Your task to perform on an android device: toggle data saver in the chrome app Image 0: 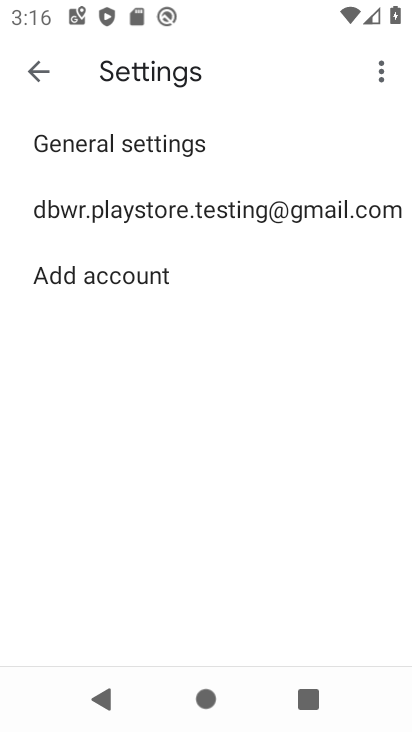
Step 0: press home button
Your task to perform on an android device: toggle data saver in the chrome app Image 1: 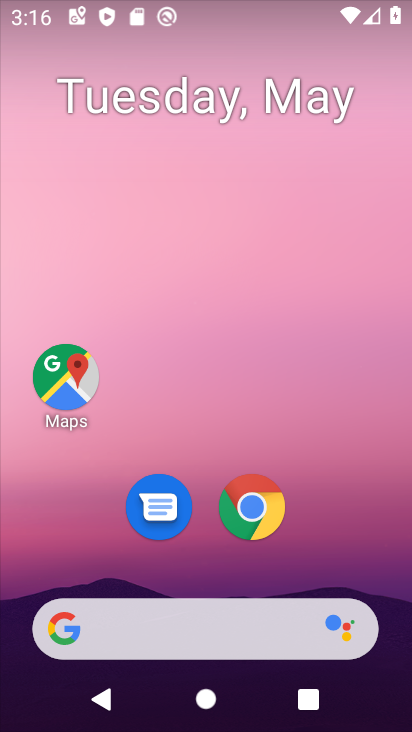
Step 1: click (252, 510)
Your task to perform on an android device: toggle data saver in the chrome app Image 2: 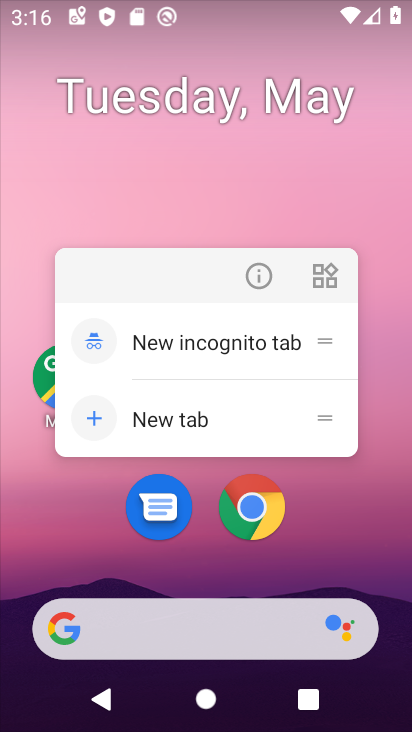
Step 2: click (251, 514)
Your task to perform on an android device: toggle data saver in the chrome app Image 3: 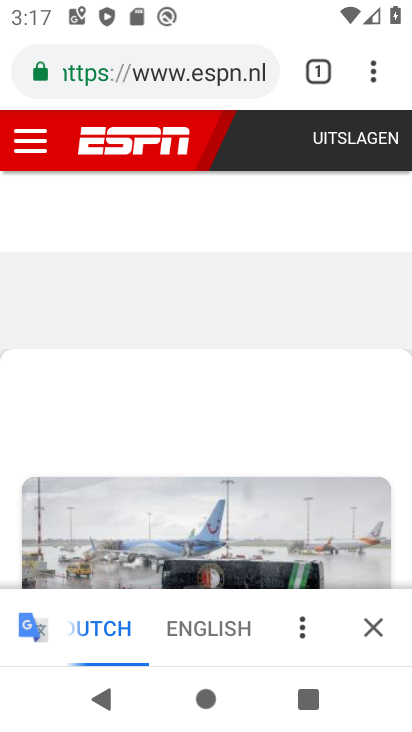
Step 3: click (382, 104)
Your task to perform on an android device: toggle data saver in the chrome app Image 4: 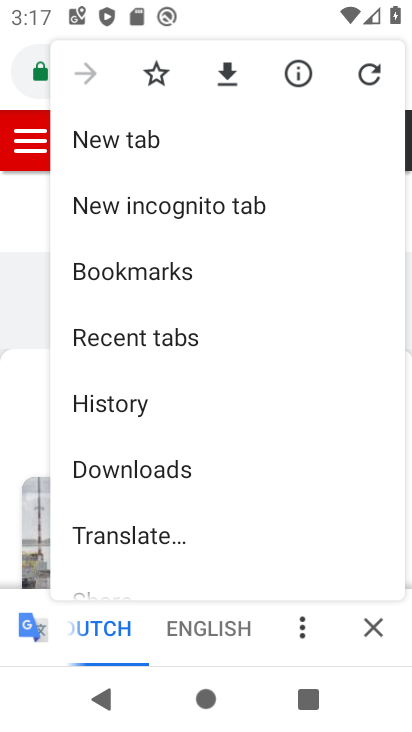
Step 4: drag from (156, 550) to (181, 269)
Your task to perform on an android device: toggle data saver in the chrome app Image 5: 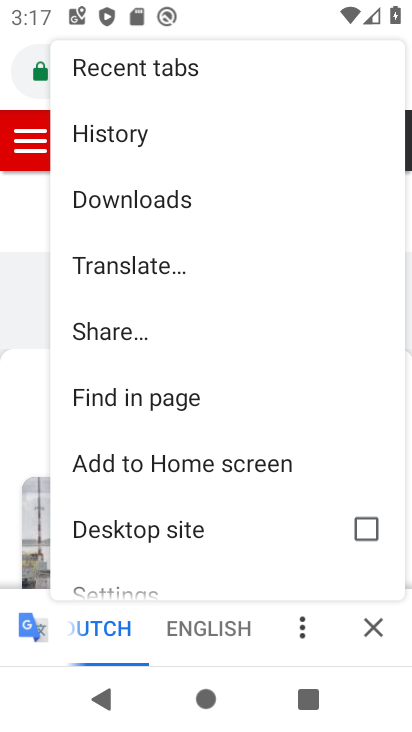
Step 5: drag from (137, 568) to (182, 383)
Your task to perform on an android device: toggle data saver in the chrome app Image 6: 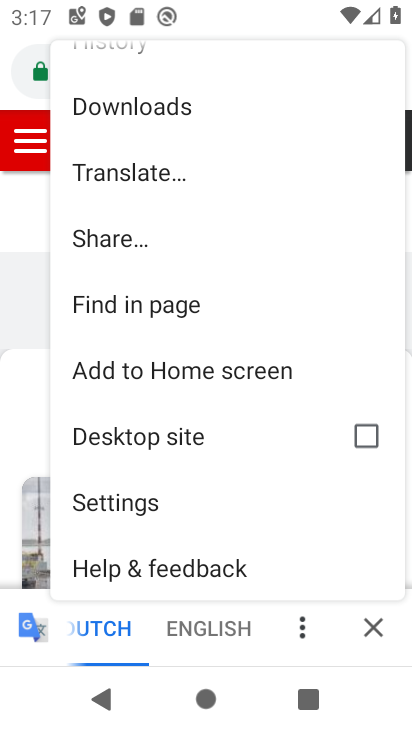
Step 6: click (159, 493)
Your task to perform on an android device: toggle data saver in the chrome app Image 7: 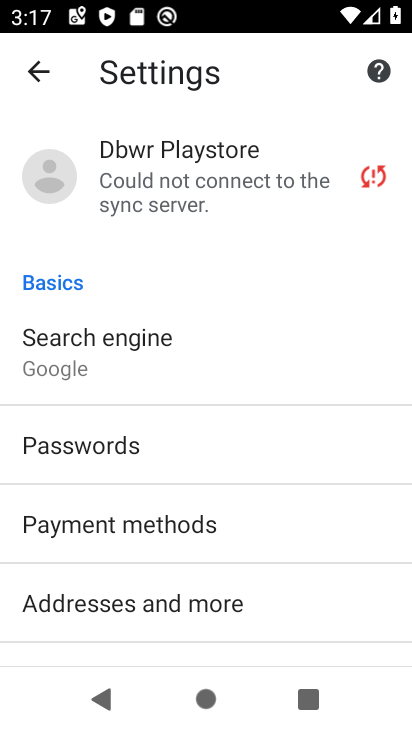
Step 7: drag from (167, 580) to (163, 300)
Your task to perform on an android device: toggle data saver in the chrome app Image 8: 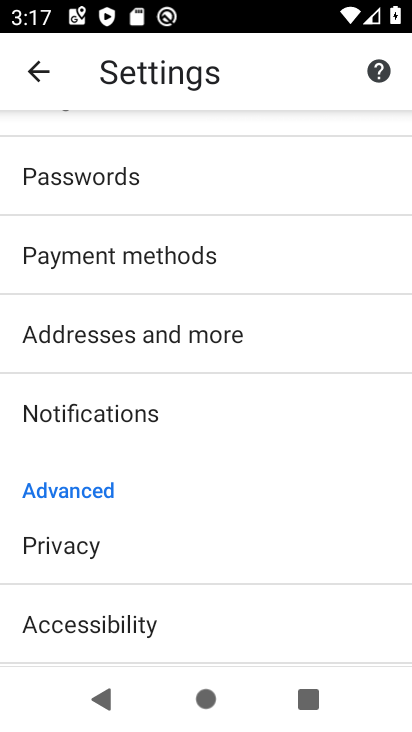
Step 8: drag from (260, 553) to (259, 204)
Your task to perform on an android device: toggle data saver in the chrome app Image 9: 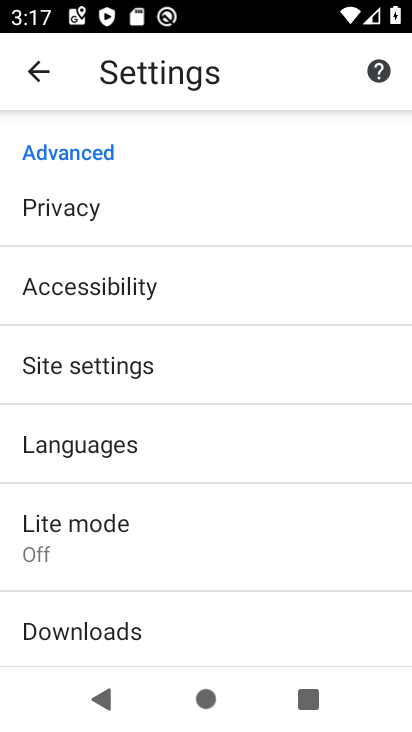
Step 9: click (118, 544)
Your task to perform on an android device: toggle data saver in the chrome app Image 10: 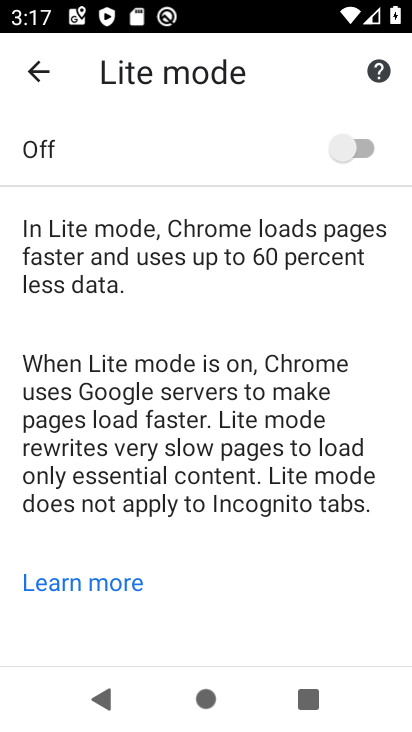
Step 10: click (372, 145)
Your task to perform on an android device: toggle data saver in the chrome app Image 11: 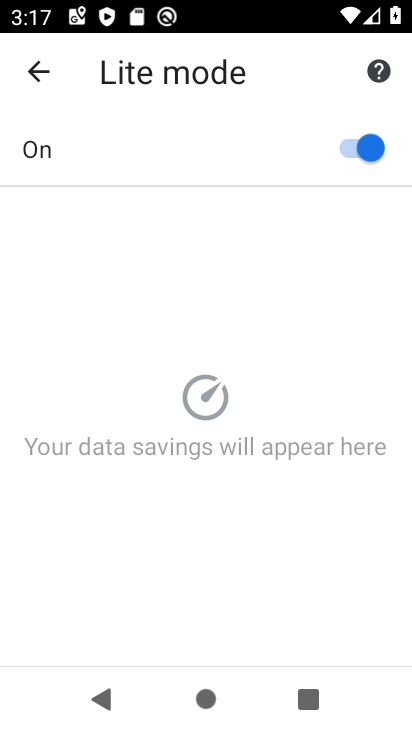
Step 11: task complete